Your task to perform on an android device: Go to privacy settings Image 0: 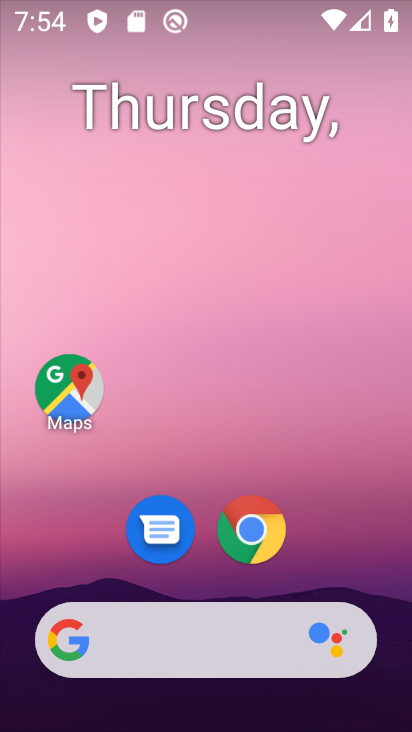
Step 0: drag from (202, 584) to (179, 191)
Your task to perform on an android device: Go to privacy settings Image 1: 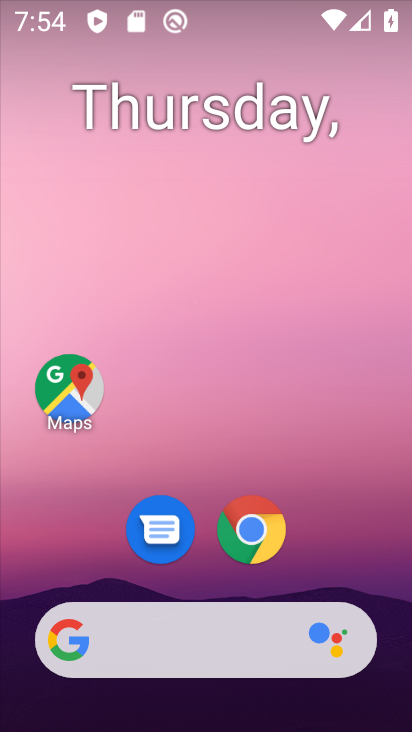
Step 1: drag from (206, 582) to (151, 327)
Your task to perform on an android device: Go to privacy settings Image 2: 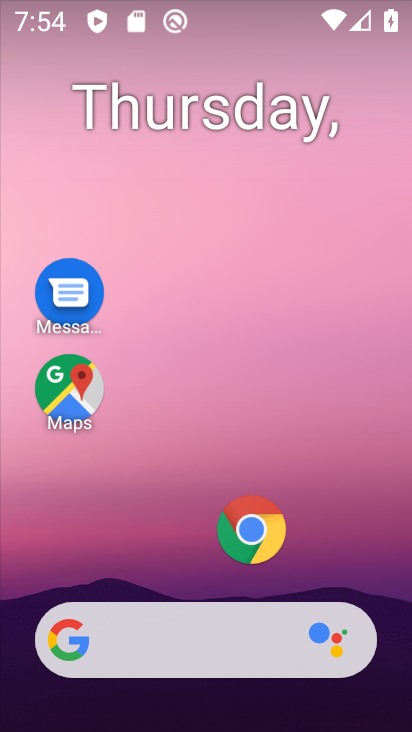
Step 2: click (213, 47)
Your task to perform on an android device: Go to privacy settings Image 3: 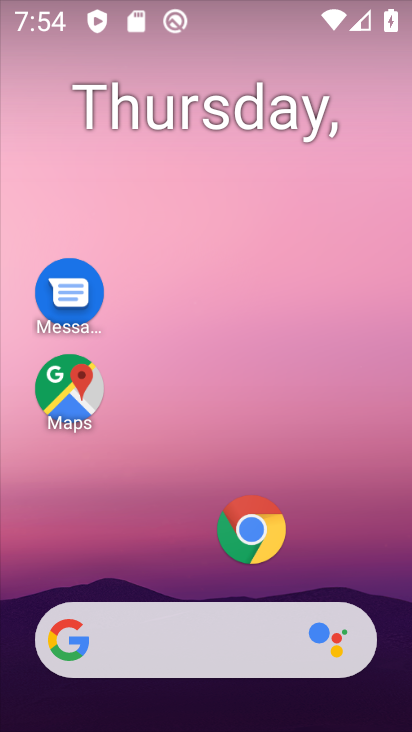
Step 3: drag from (171, 564) to (258, 42)
Your task to perform on an android device: Go to privacy settings Image 4: 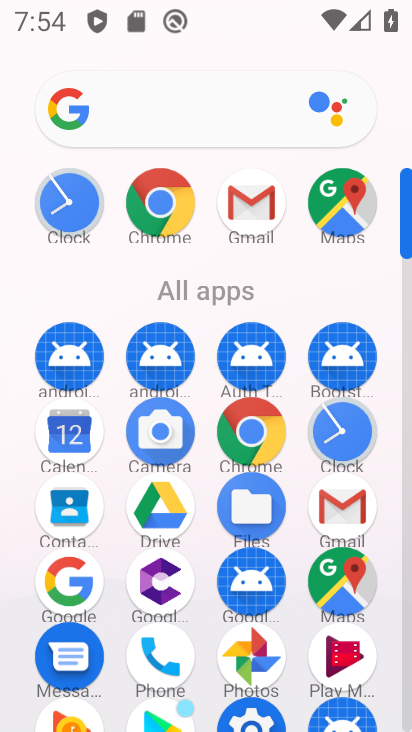
Step 4: click (368, 440)
Your task to perform on an android device: Go to privacy settings Image 5: 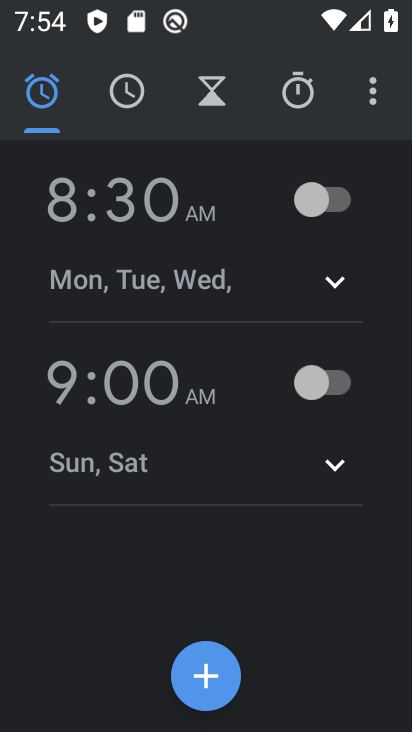
Step 5: press home button
Your task to perform on an android device: Go to privacy settings Image 6: 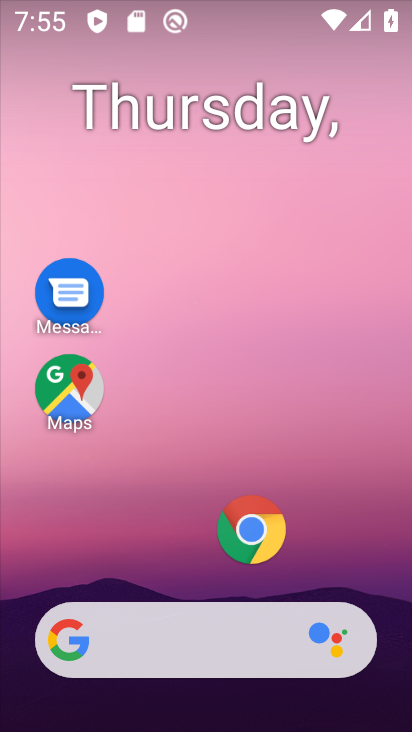
Step 6: drag from (176, 580) to (148, 130)
Your task to perform on an android device: Go to privacy settings Image 7: 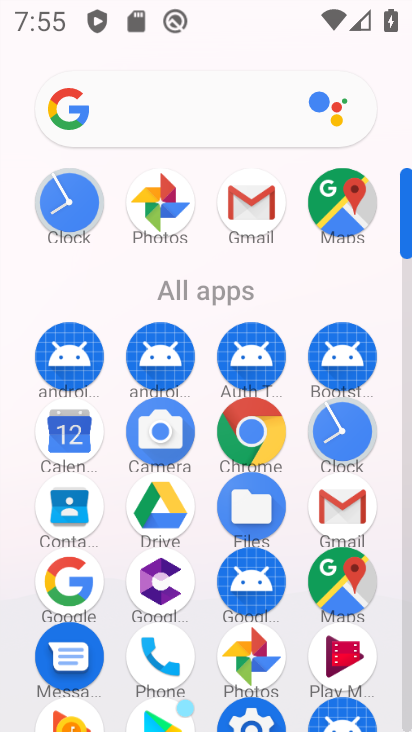
Step 7: click (244, 720)
Your task to perform on an android device: Go to privacy settings Image 8: 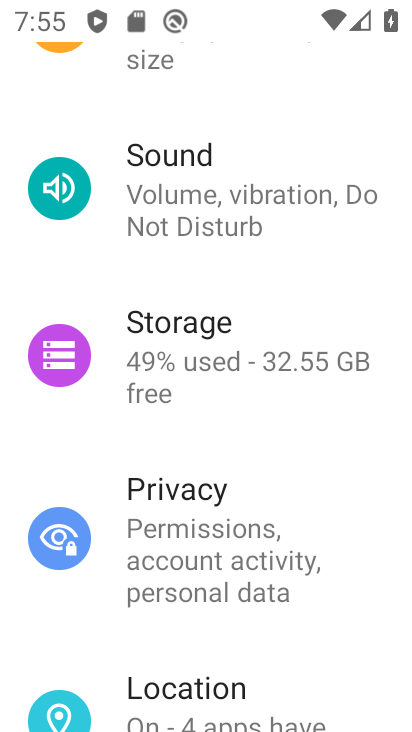
Step 8: click (180, 533)
Your task to perform on an android device: Go to privacy settings Image 9: 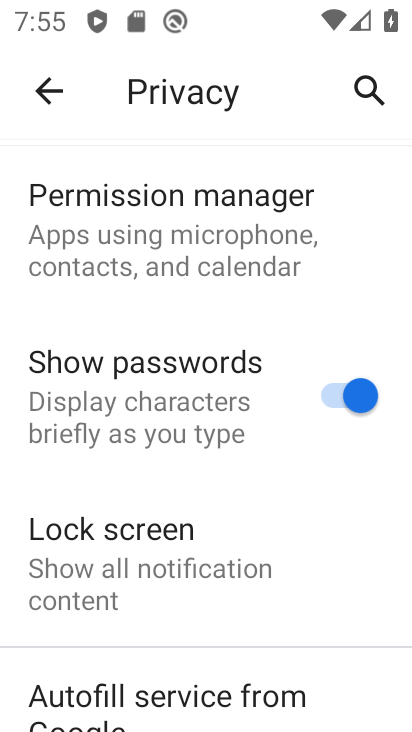
Step 9: task complete